Your task to perform on an android device: set the stopwatch Image 0: 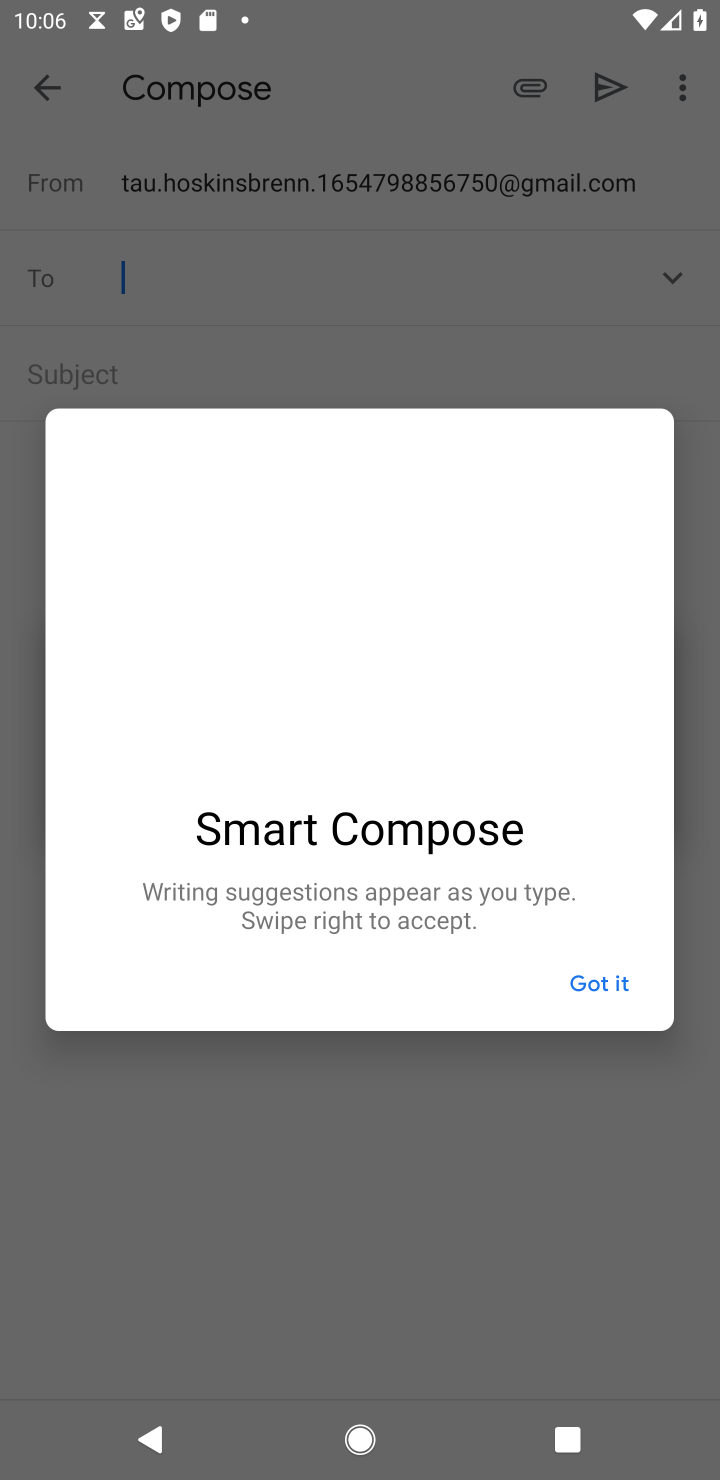
Step 0: press home button
Your task to perform on an android device: set the stopwatch Image 1: 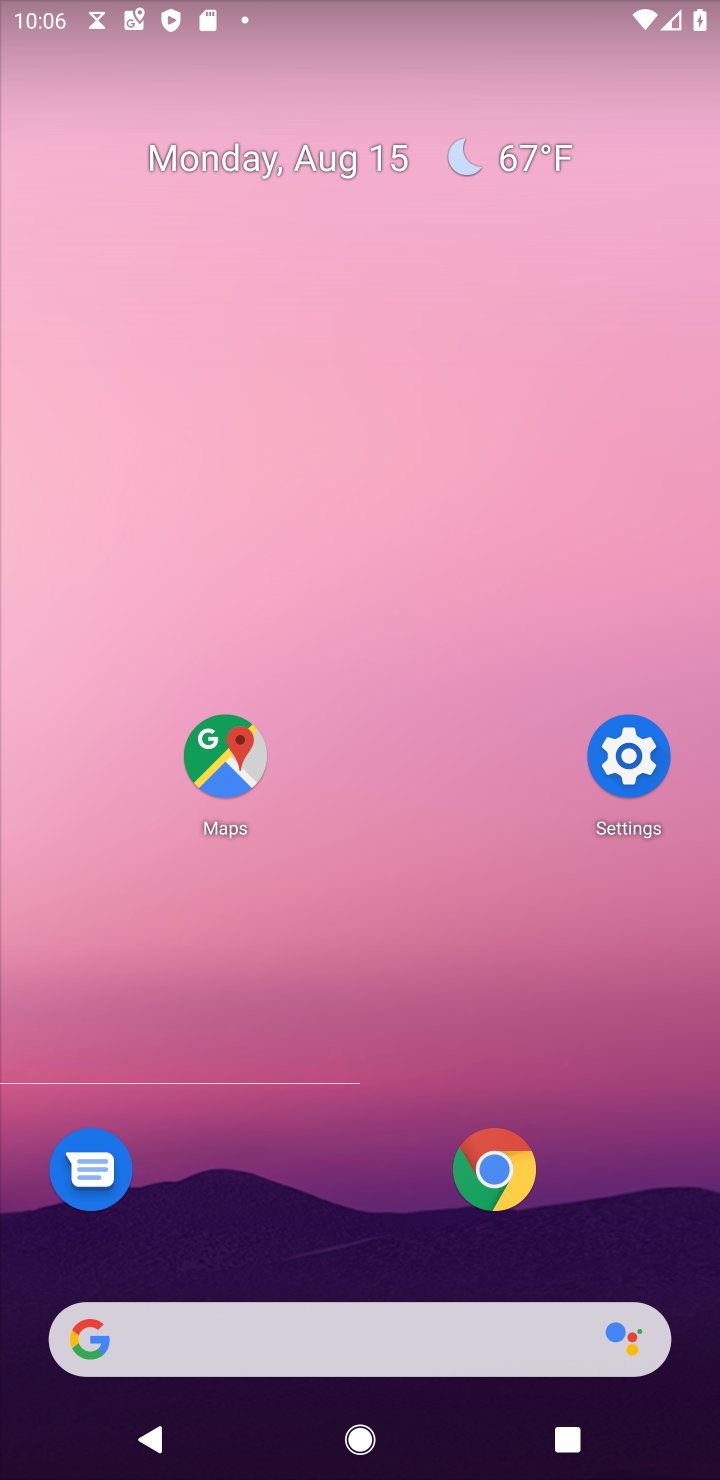
Step 1: press home button
Your task to perform on an android device: set the stopwatch Image 2: 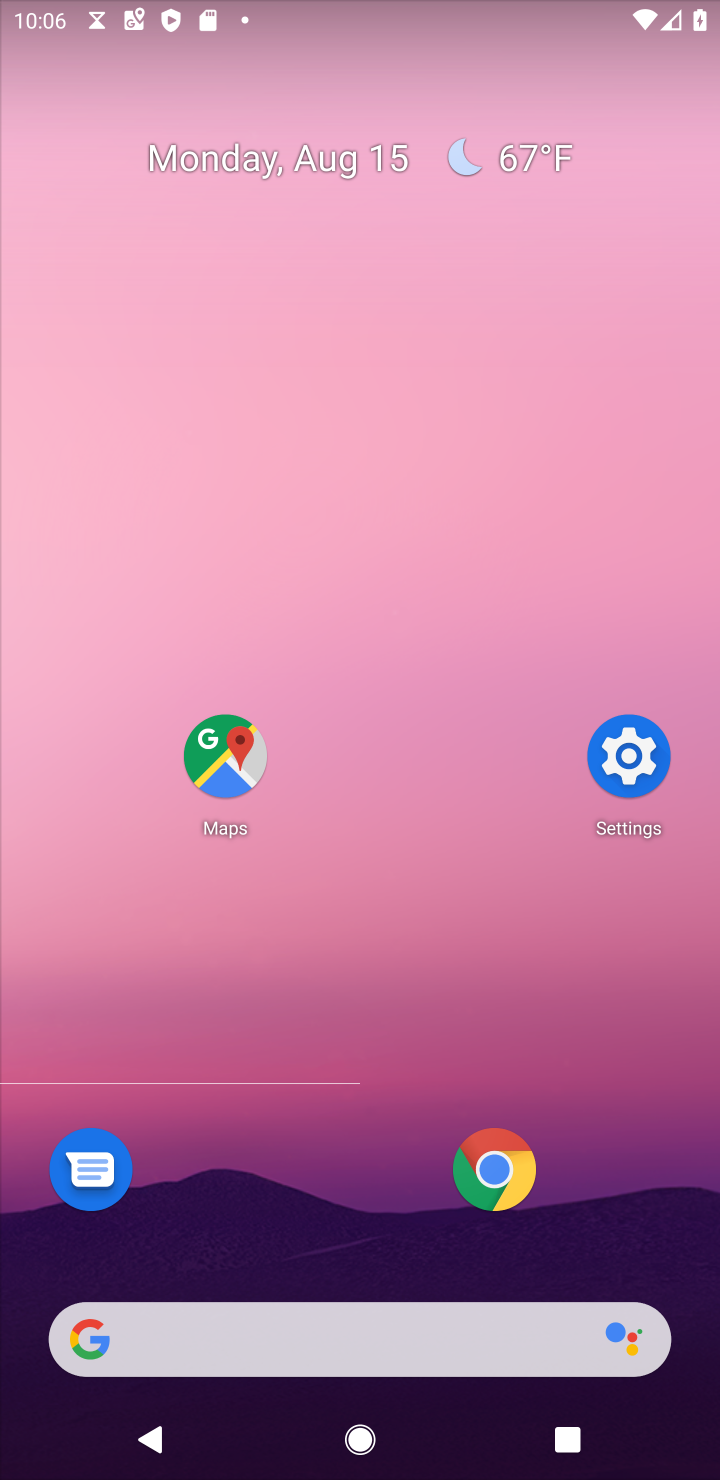
Step 2: drag from (434, 1230) to (673, 192)
Your task to perform on an android device: set the stopwatch Image 3: 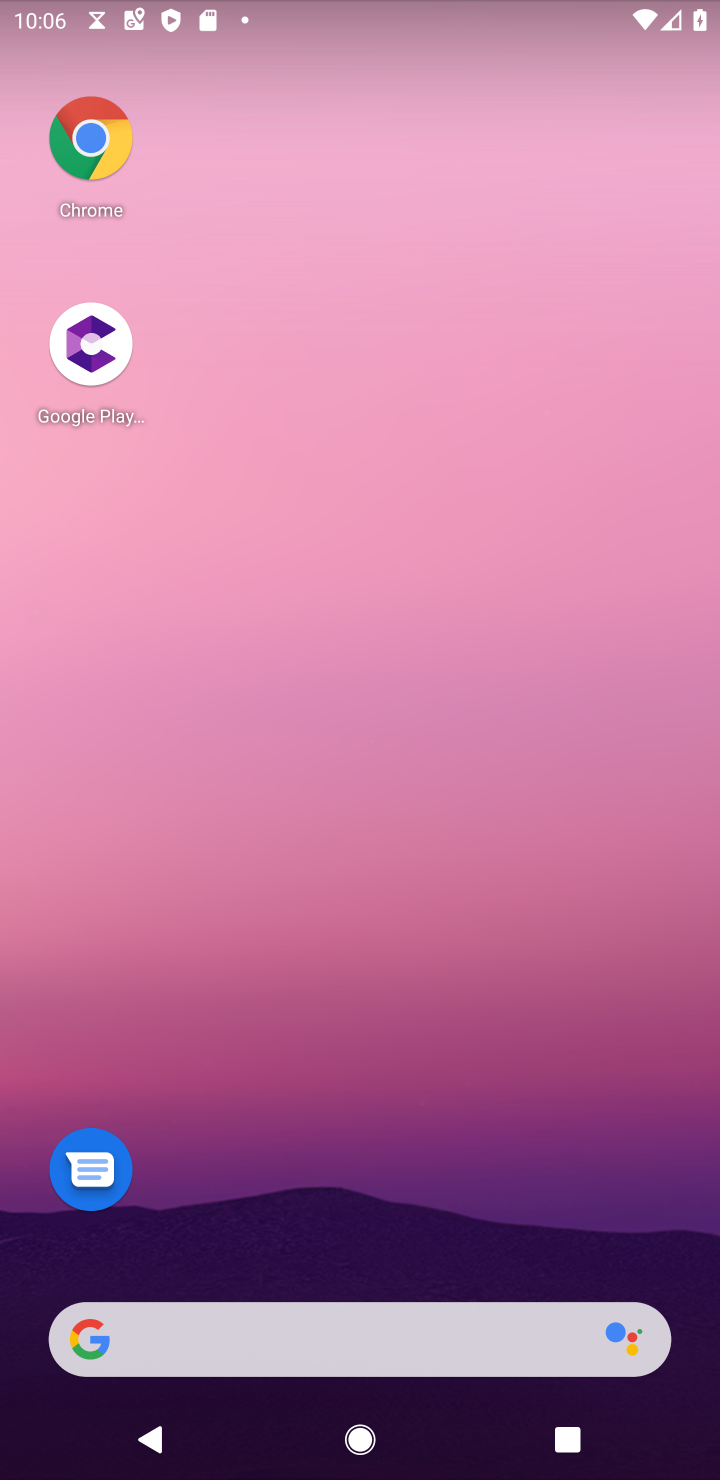
Step 3: drag from (79, 133) to (0, 513)
Your task to perform on an android device: set the stopwatch Image 4: 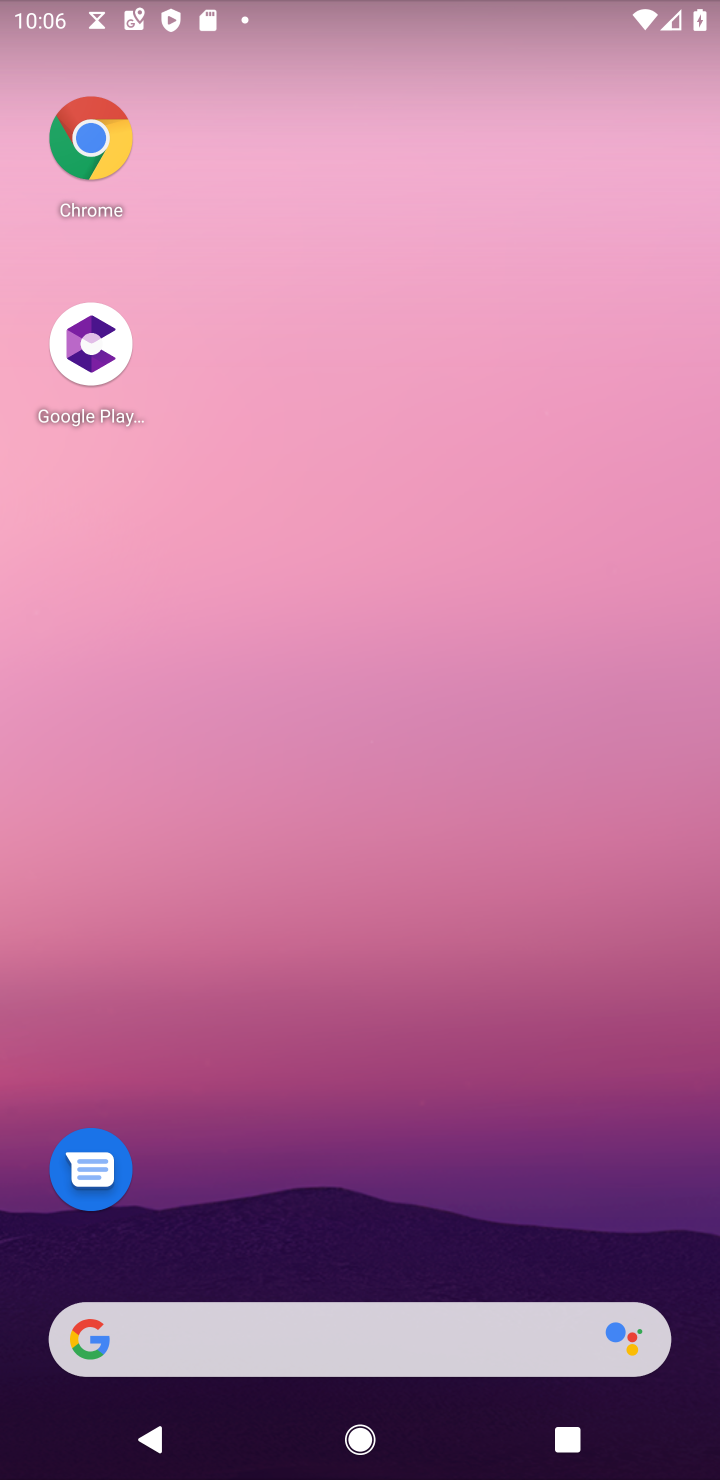
Step 4: drag from (90, 139) to (471, 1128)
Your task to perform on an android device: set the stopwatch Image 5: 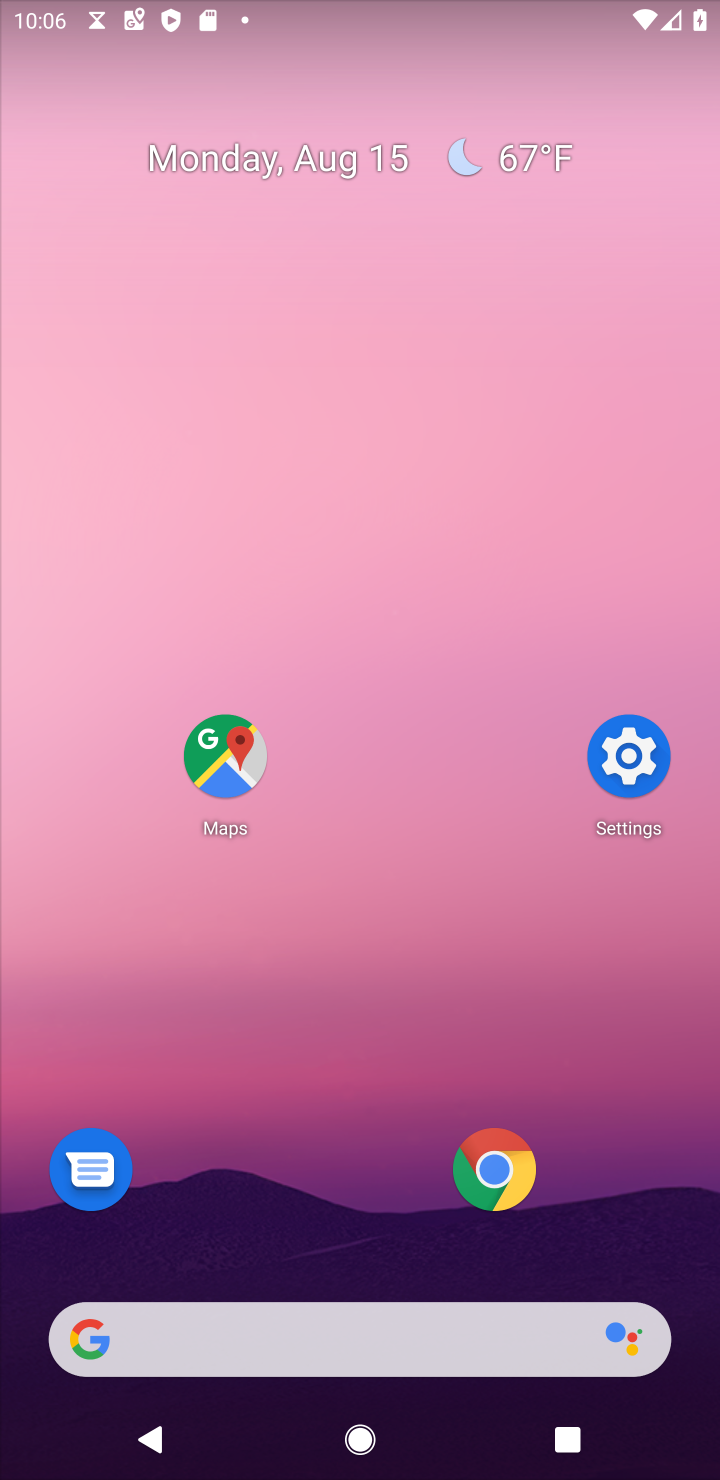
Step 5: drag from (312, 1249) to (497, 145)
Your task to perform on an android device: set the stopwatch Image 6: 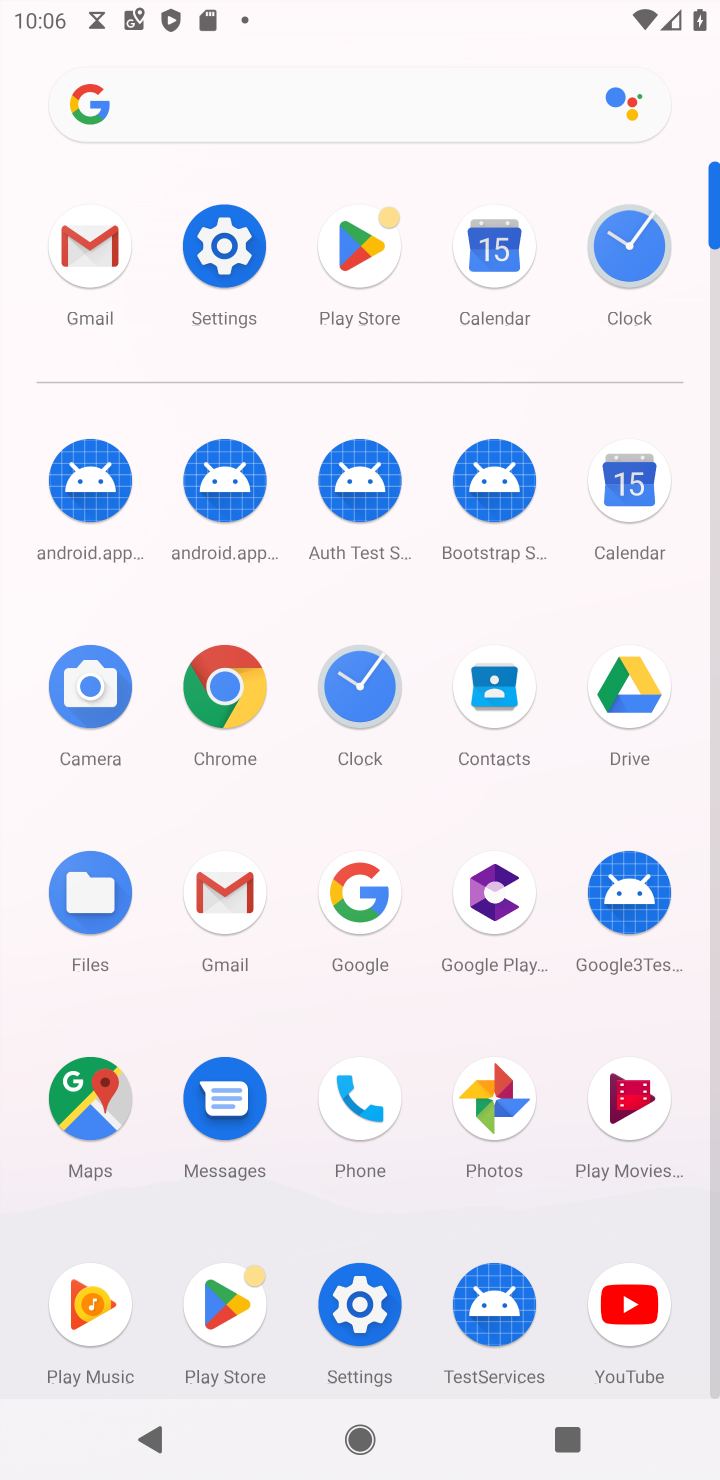
Step 6: click (359, 683)
Your task to perform on an android device: set the stopwatch Image 7: 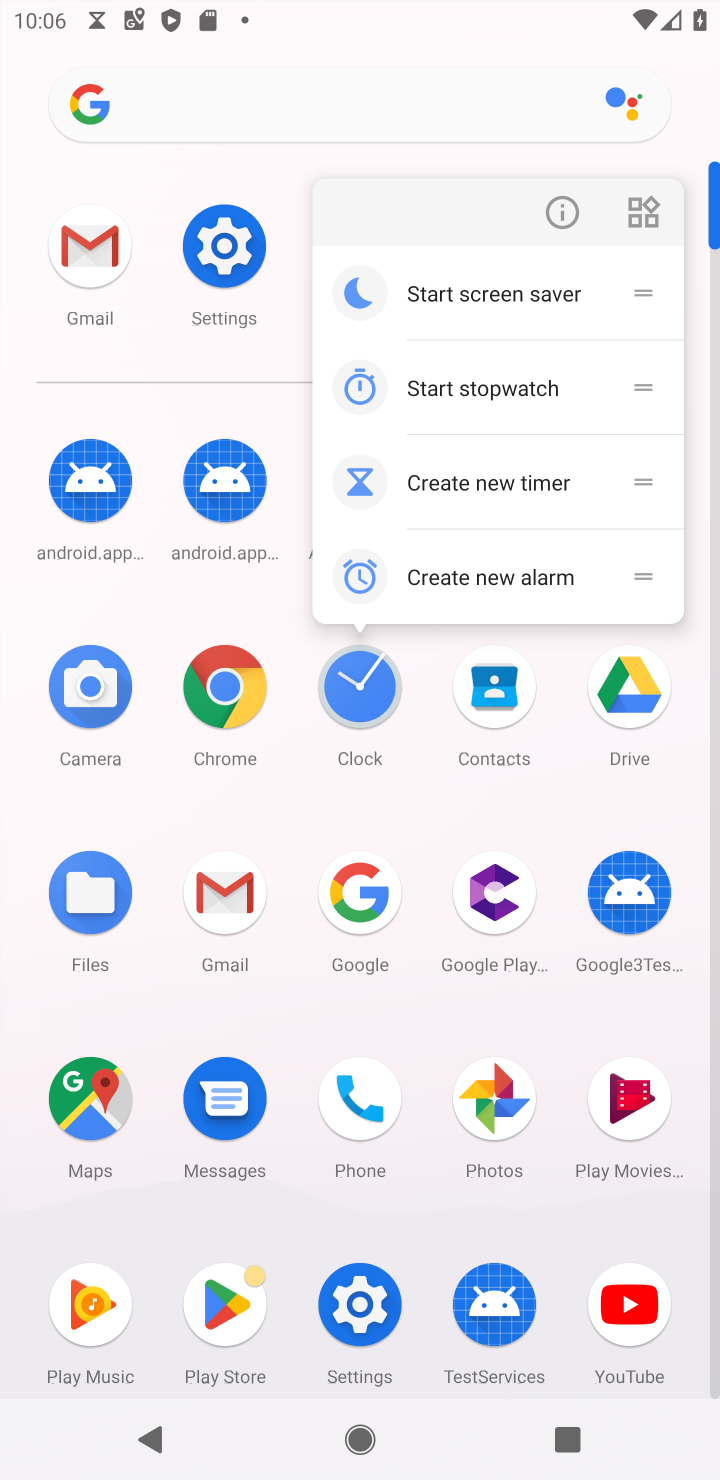
Step 7: click (359, 682)
Your task to perform on an android device: set the stopwatch Image 8: 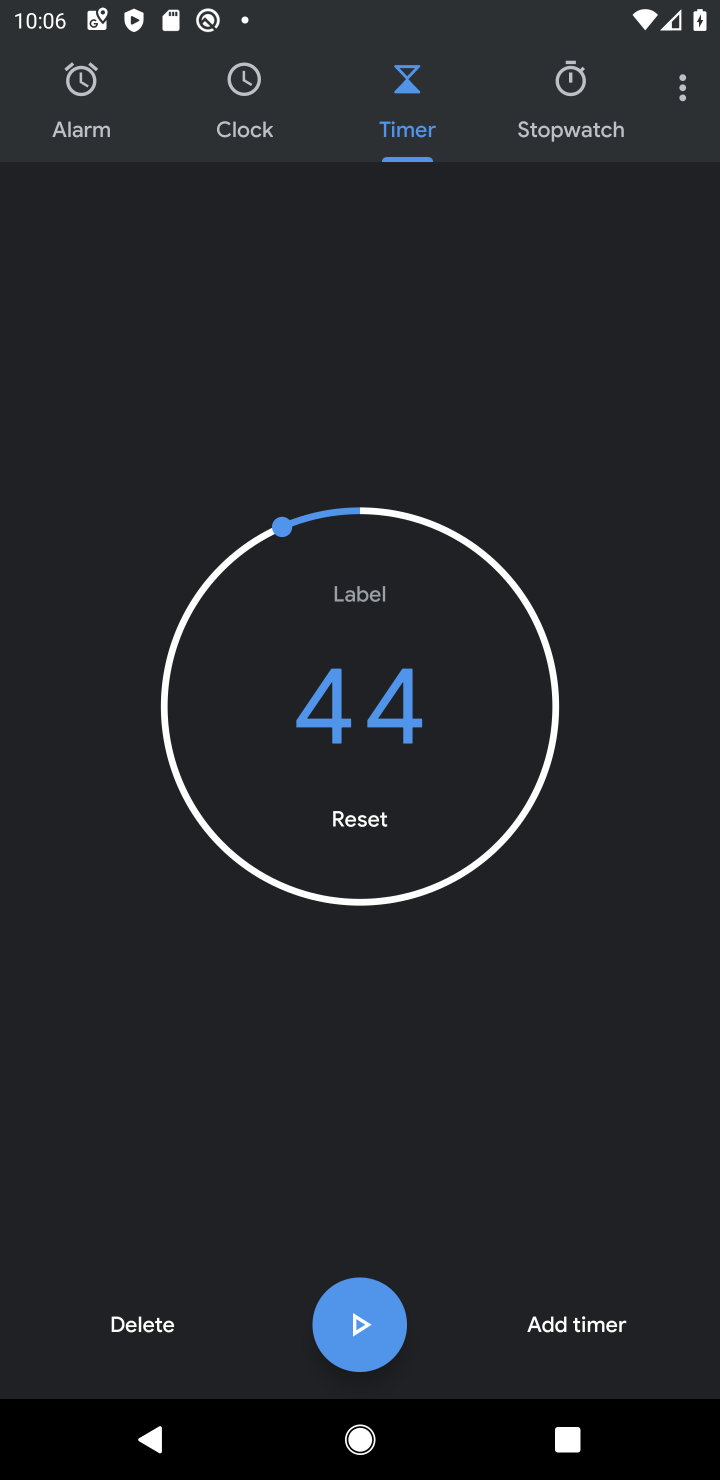
Step 8: click (566, 113)
Your task to perform on an android device: set the stopwatch Image 9: 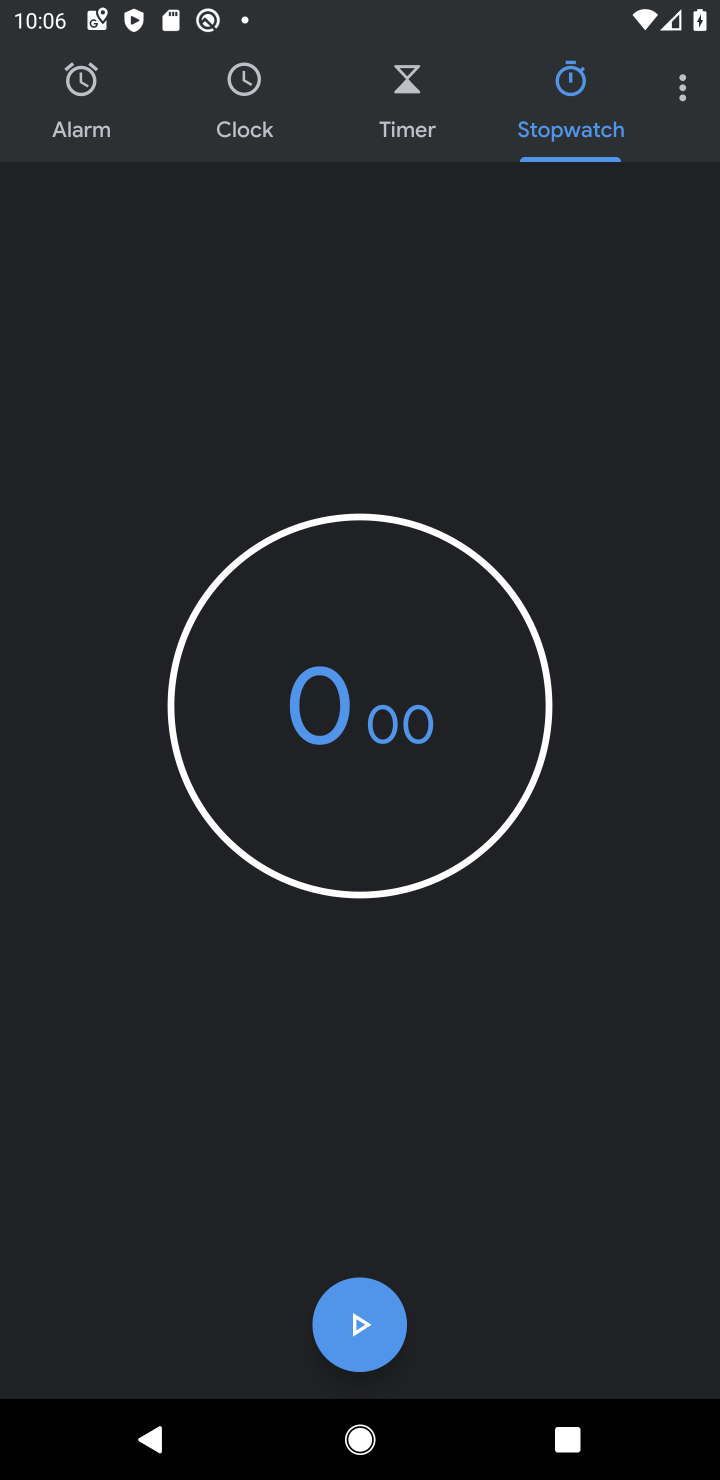
Step 9: click (359, 714)
Your task to perform on an android device: set the stopwatch Image 10: 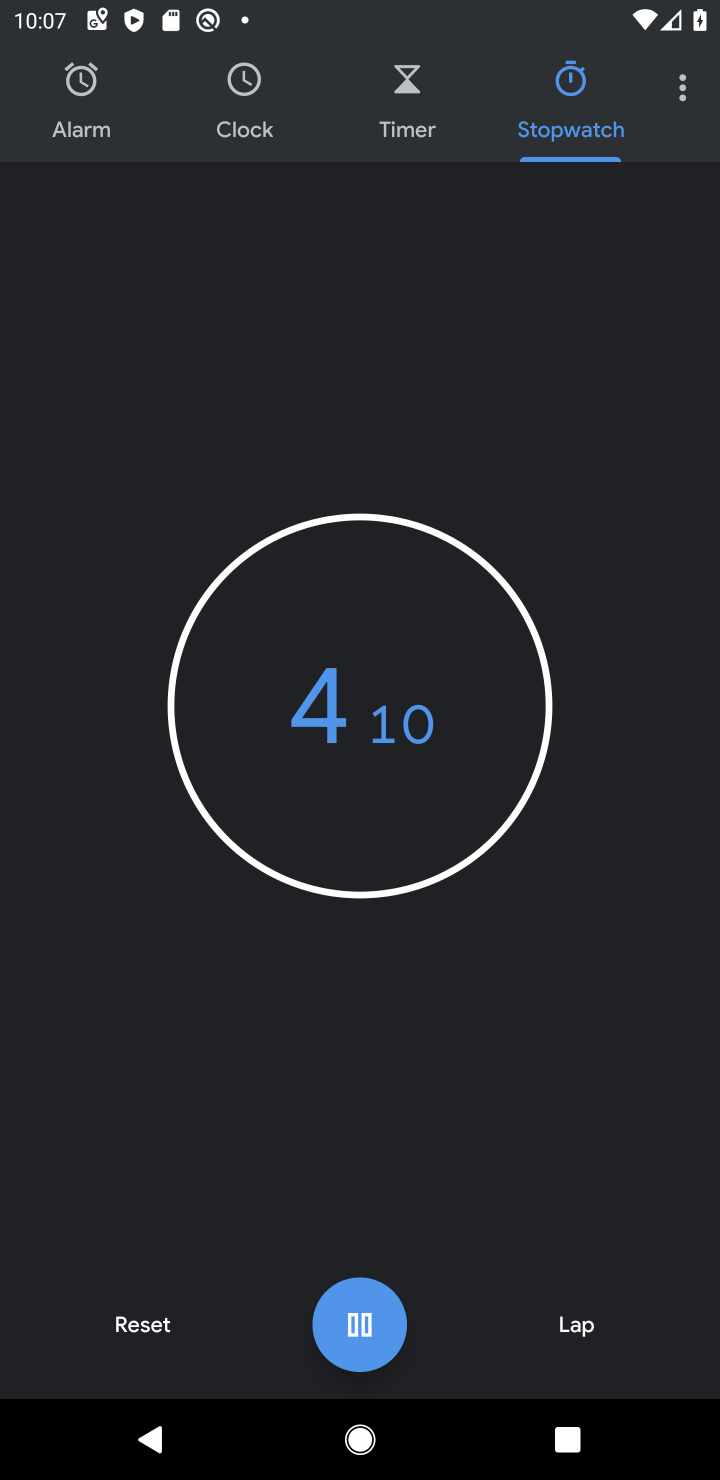
Step 10: click (398, 670)
Your task to perform on an android device: set the stopwatch Image 11: 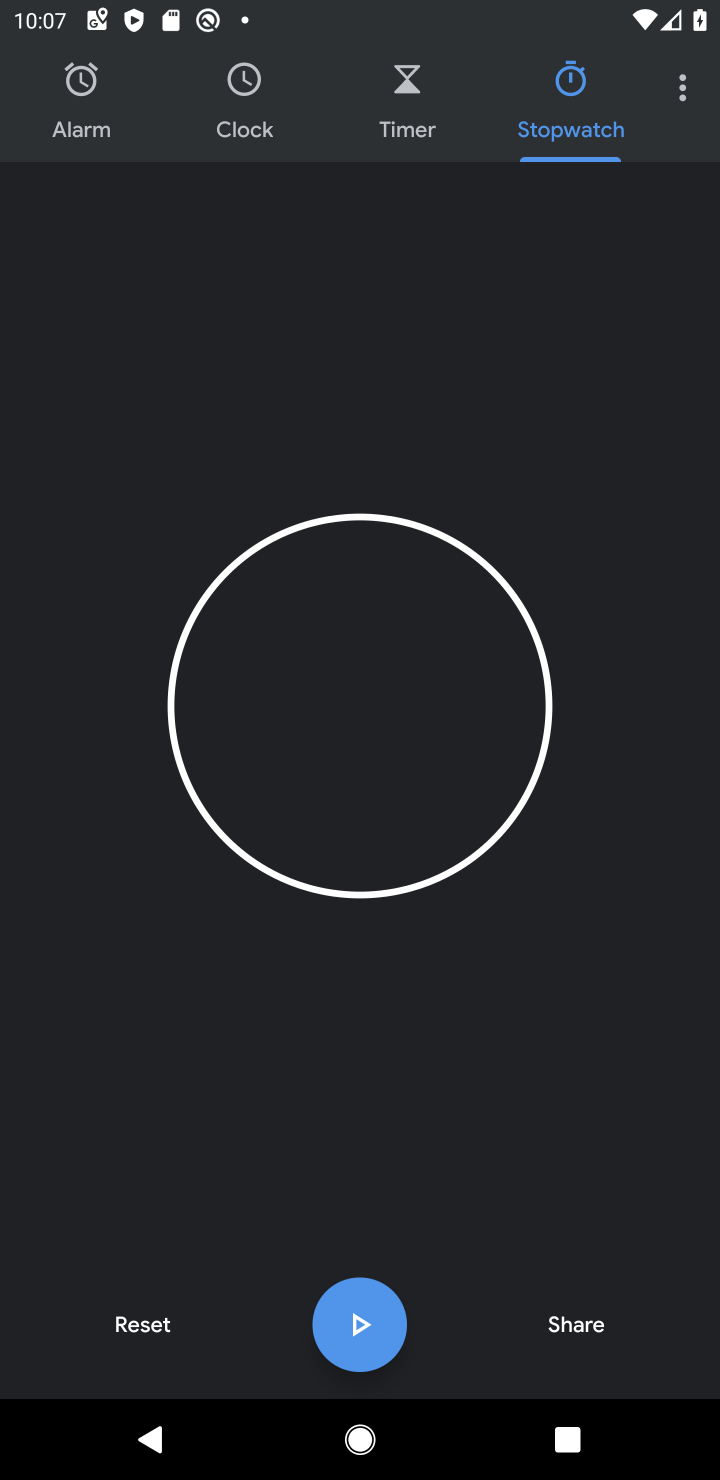
Step 11: task complete